Your task to perform on an android device: open chrome and create a bookmark for the current page Image 0: 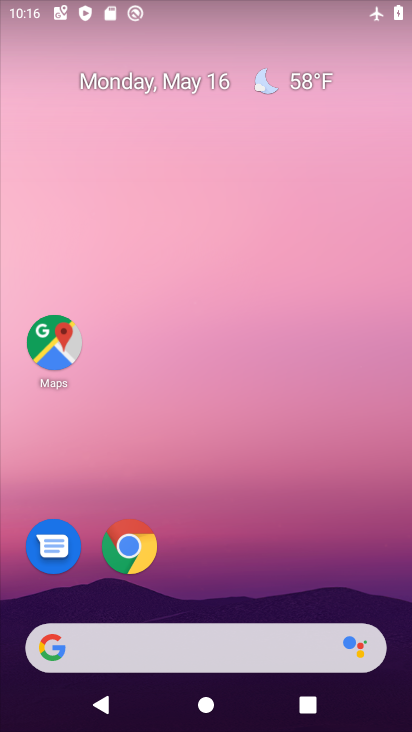
Step 0: click (128, 547)
Your task to perform on an android device: open chrome and create a bookmark for the current page Image 1: 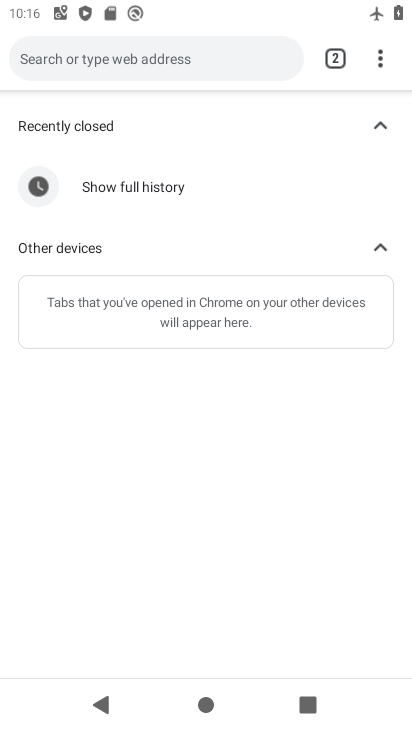
Step 1: click (377, 60)
Your task to perform on an android device: open chrome and create a bookmark for the current page Image 2: 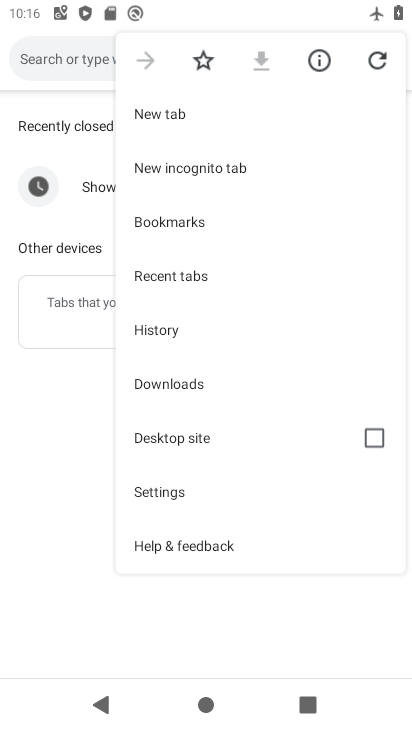
Step 2: click (203, 64)
Your task to perform on an android device: open chrome and create a bookmark for the current page Image 3: 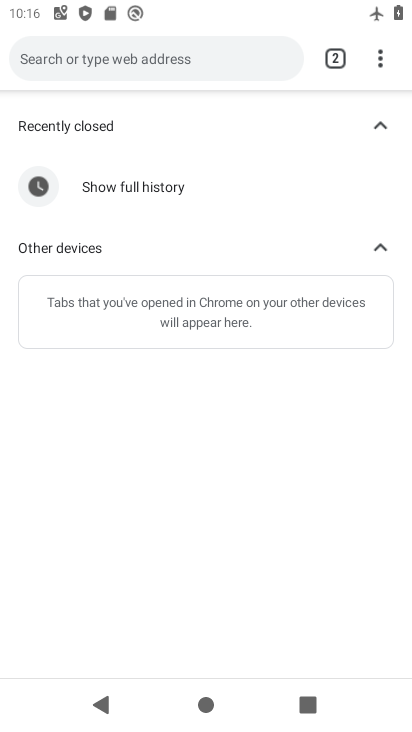
Step 3: task complete